Your task to perform on an android device: Go to Maps Image 0: 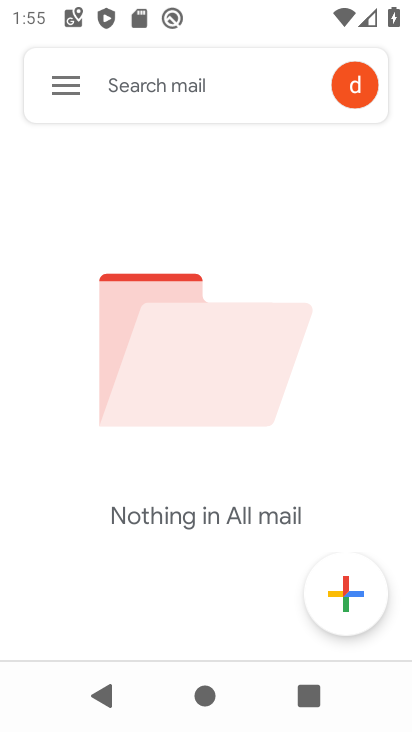
Step 0: press back button
Your task to perform on an android device: Go to Maps Image 1: 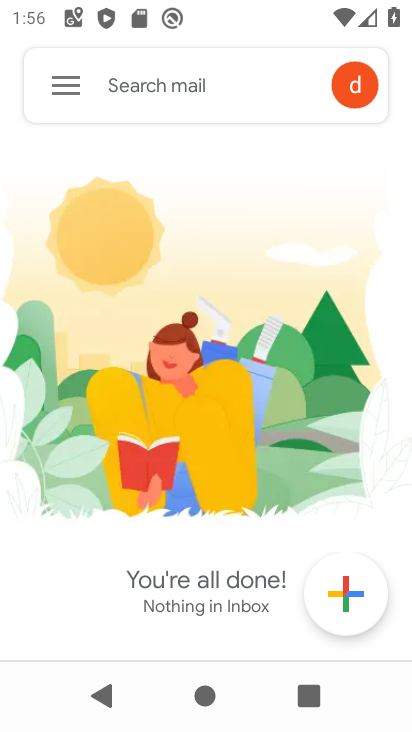
Step 1: press home button
Your task to perform on an android device: Go to Maps Image 2: 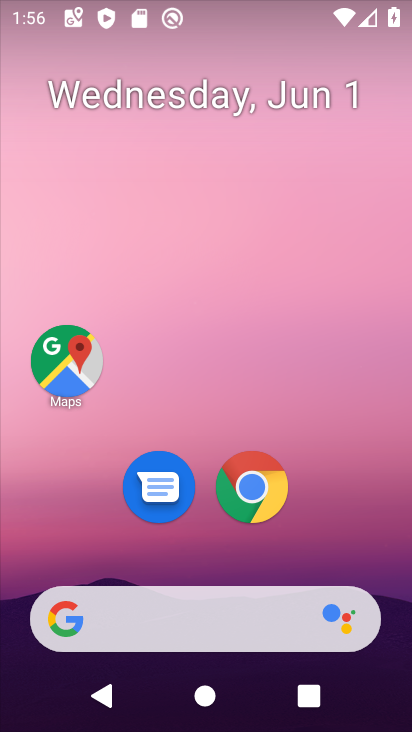
Step 2: drag from (367, 534) to (390, 111)
Your task to perform on an android device: Go to Maps Image 3: 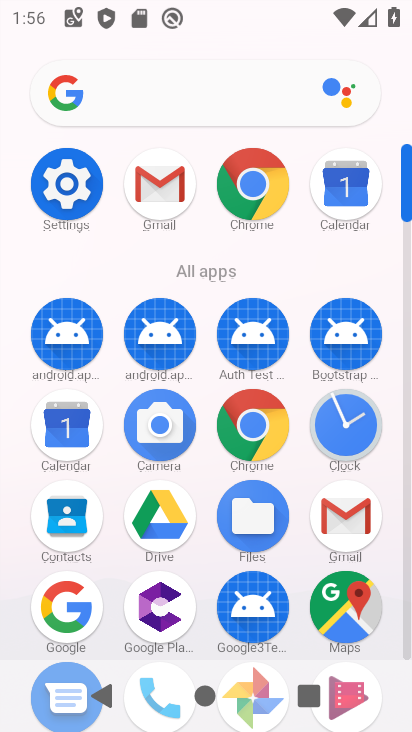
Step 3: click (332, 619)
Your task to perform on an android device: Go to Maps Image 4: 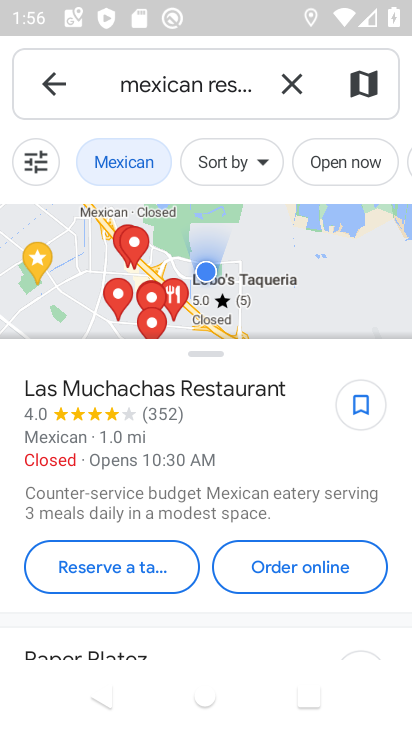
Step 4: task complete